Your task to perform on an android device: Search for seafood restaurants on Google Maps Image 0: 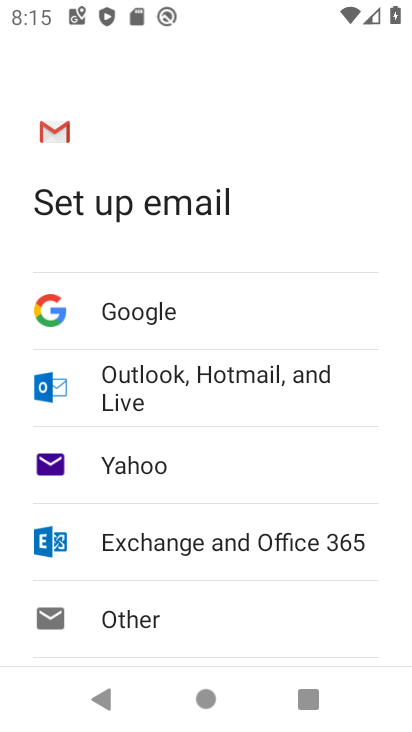
Step 0: press home button
Your task to perform on an android device: Search for seafood restaurants on Google Maps Image 1: 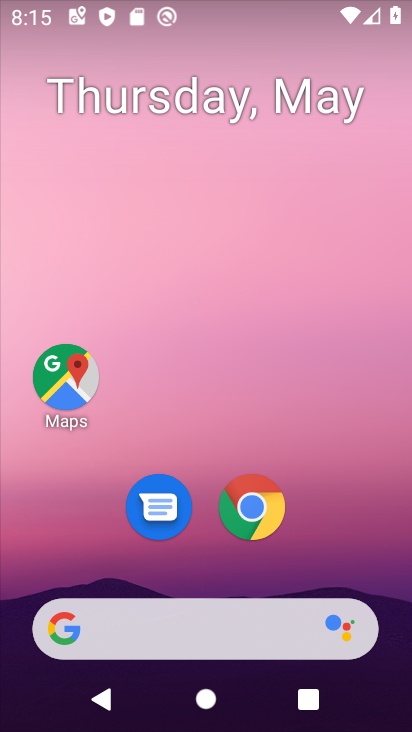
Step 1: drag from (254, 670) to (245, 256)
Your task to perform on an android device: Search for seafood restaurants on Google Maps Image 2: 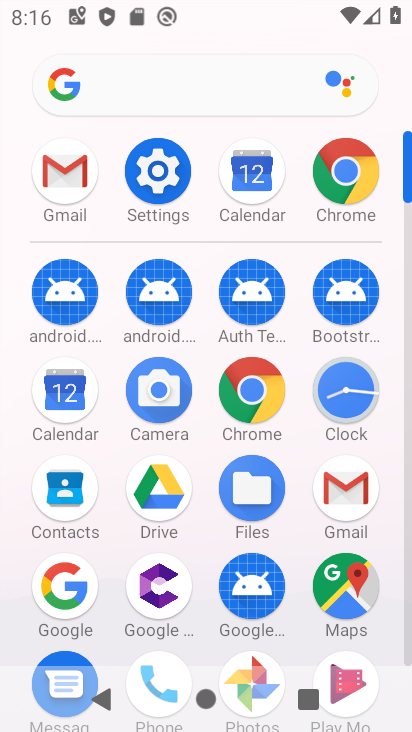
Step 2: click (362, 590)
Your task to perform on an android device: Search for seafood restaurants on Google Maps Image 3: 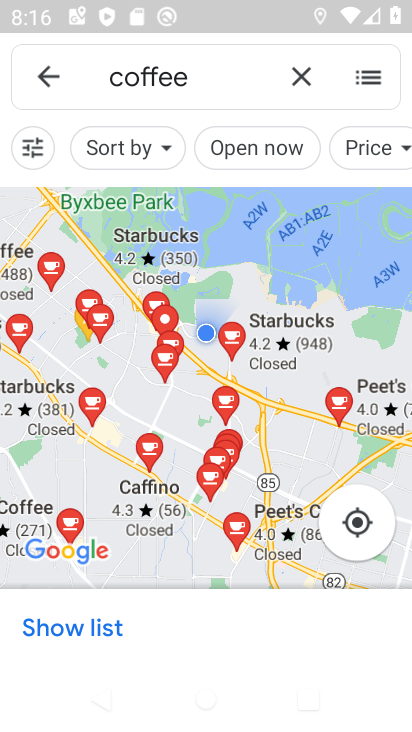
Step 3: click (290, 68)
Your task to perform on an android device: Search for seafood restaurants on Google Maps Image 4: 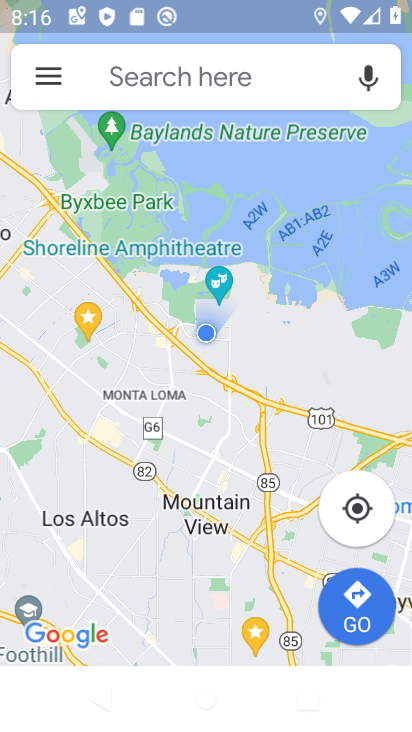
Step 4: click (181, 87)
Your task to perform on an android device: Search for seafood restaurants on Google Maps Image 5: 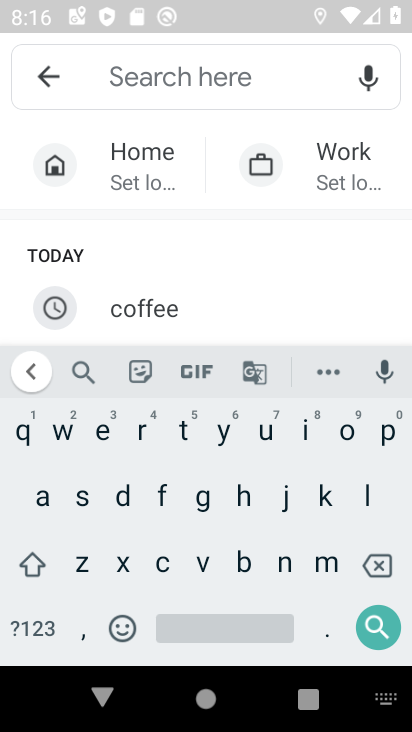
Step 5: click (78, 498)
Your task to perform on an android device: Search for seafood restaurants on Google Maps Image 6: 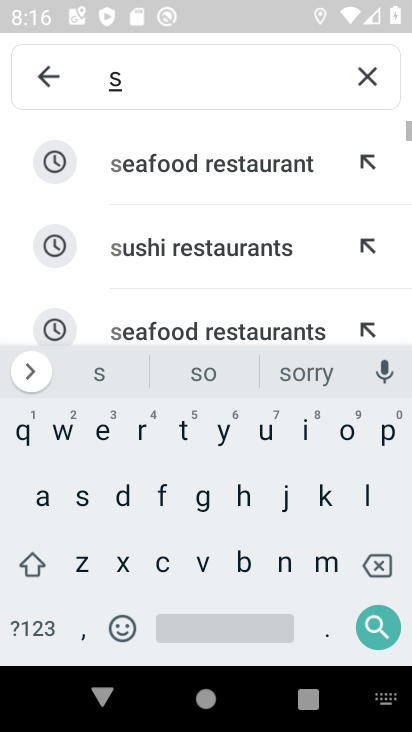
Step 6: click (197, 174)
Your task to perform on an android device: Search for seafood restaurants on Google Maps Image 7: 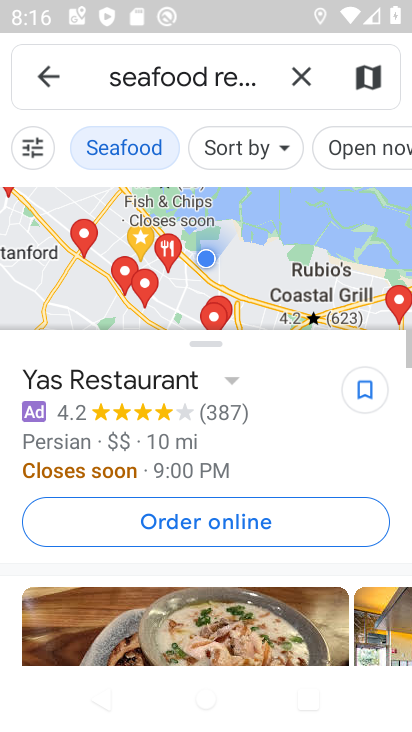
Step 7: click (200, 283)
Your task to perform on an android device: Search for seafood restaurants on Google Maps Image 8: 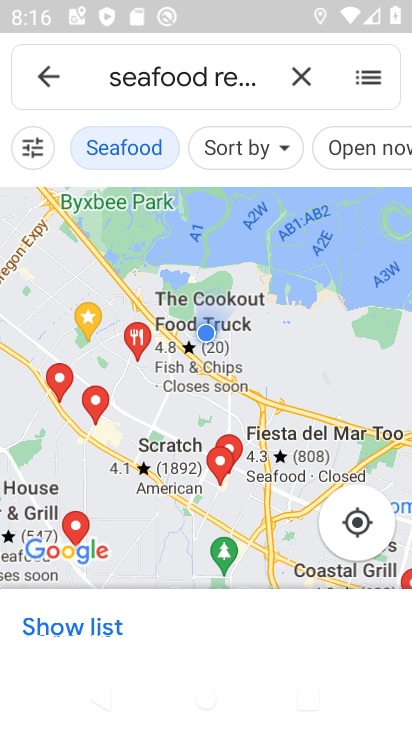
Step 8: task complete